Your task to perform on an android device: Open maps Image 0: 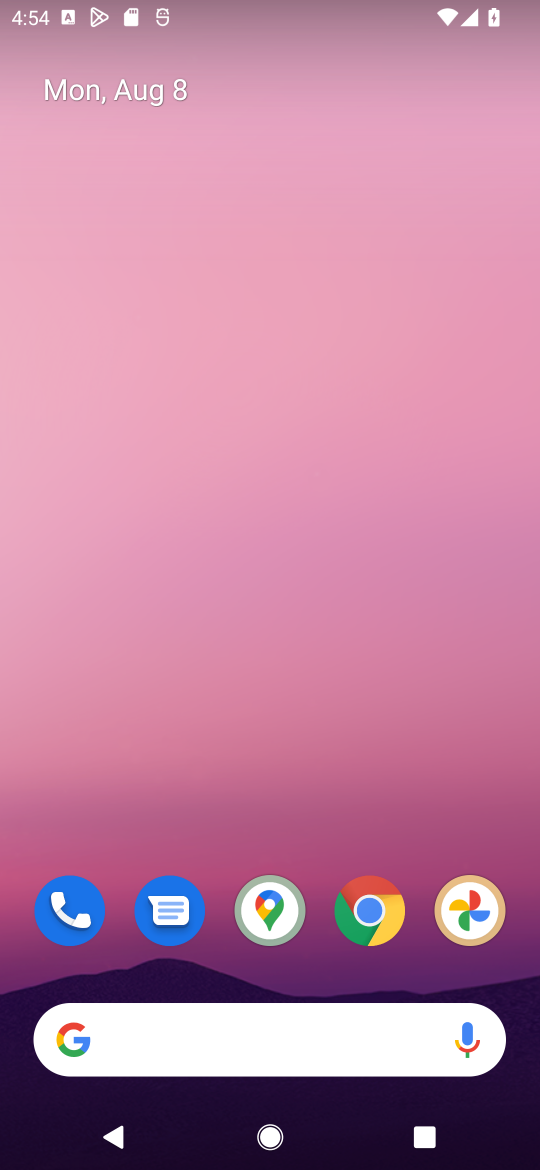
Step 0: drag from (249, 817) to (256, 104)
Your task to perform on an android device: Open maps Image 1: 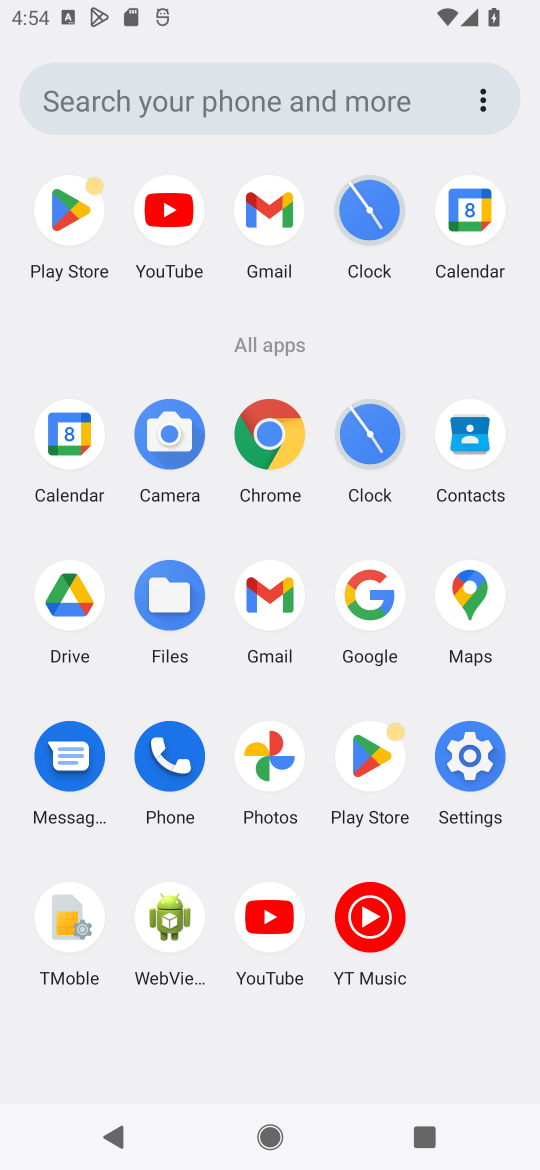
Step 1: click (464, 610)
Your task to perform on an android device: Open maps Image 2: 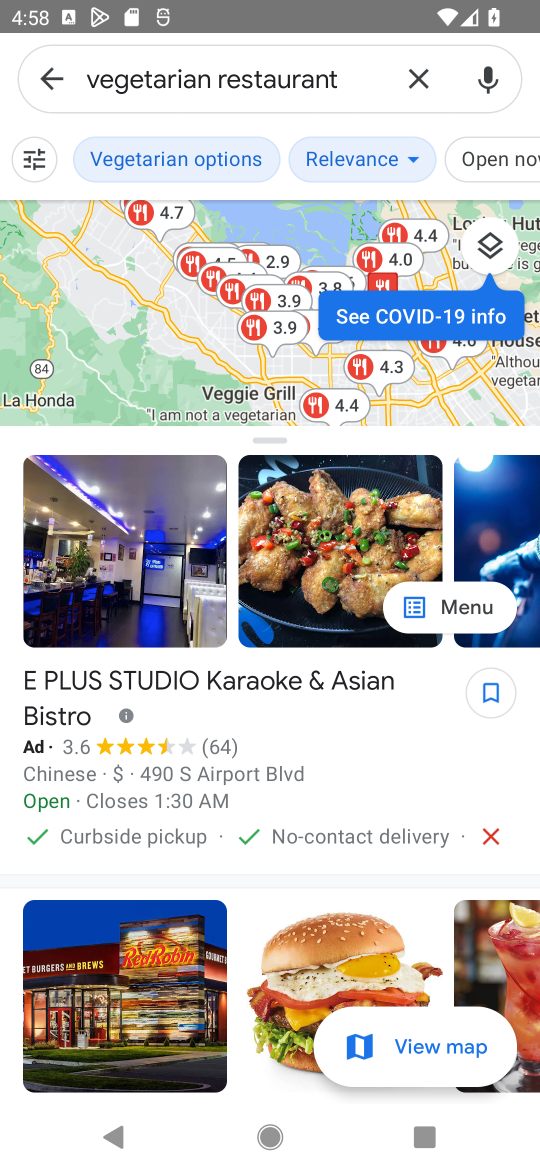
Step 2: task complete